Your task to perform on an android device: turn on notifications settings in the gmail app Image 0: 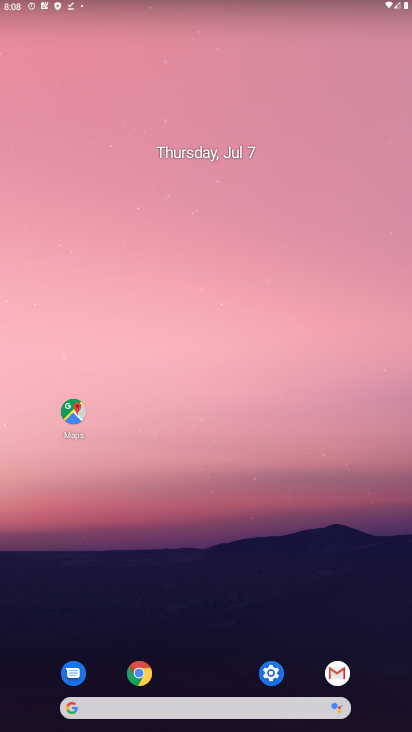
Step 0: click (344, 671)
Your task to perform on an android device: turn on notifications settings in the gmail app Image 1: 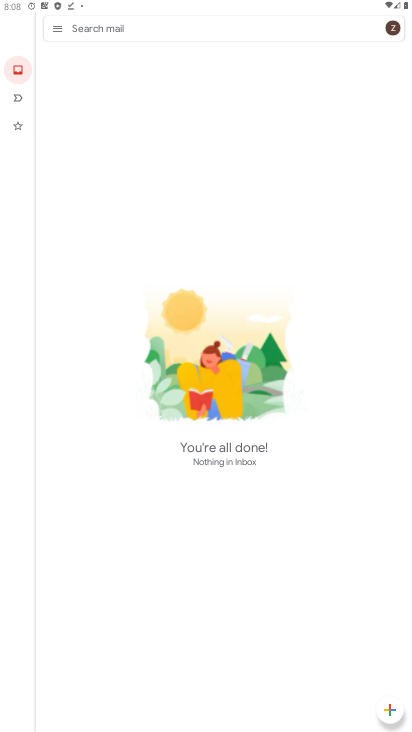
Step 1: click (47, 34)
Your task to perform on an android device: turn on notifications settings in the gmail app Image 2: 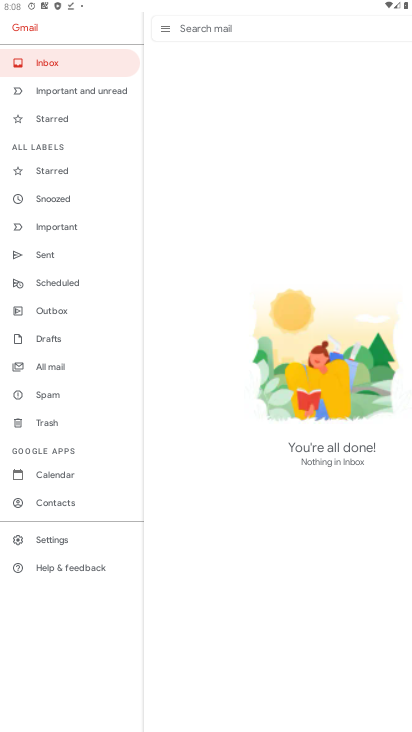
Step 2: click (43, 539)
Your task to perform on an android device: turn on notifications settings in the gmail app Image 3: 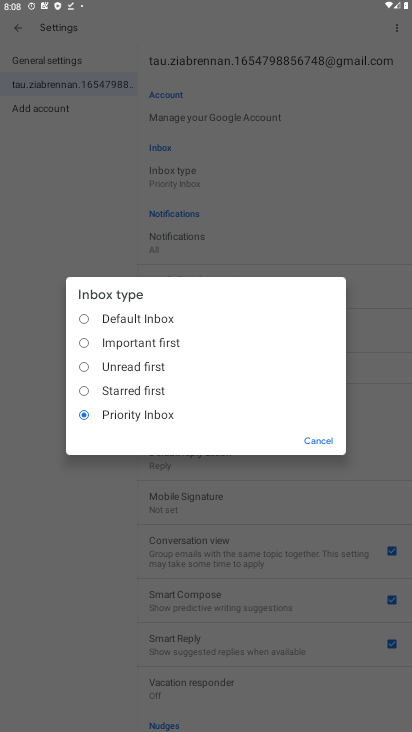
Step 3: click (320, 442)
Your task to perform on an android device: turn on notifications settings in the gmail app Image 4: 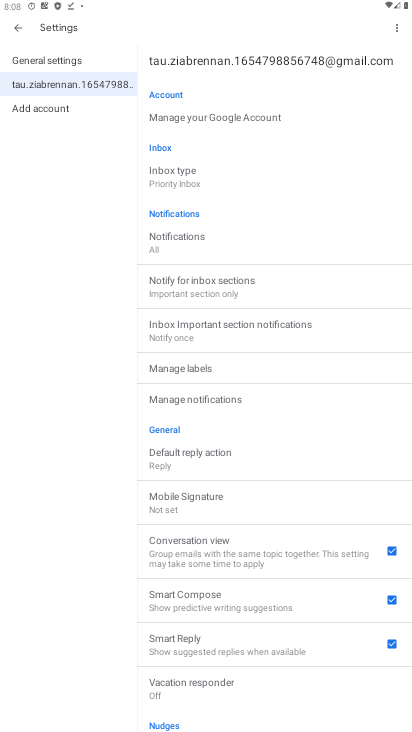
Step 4: click (190, 239)
Your task to perform on an android device: turn on notifications settings in the gmail app Image 5: 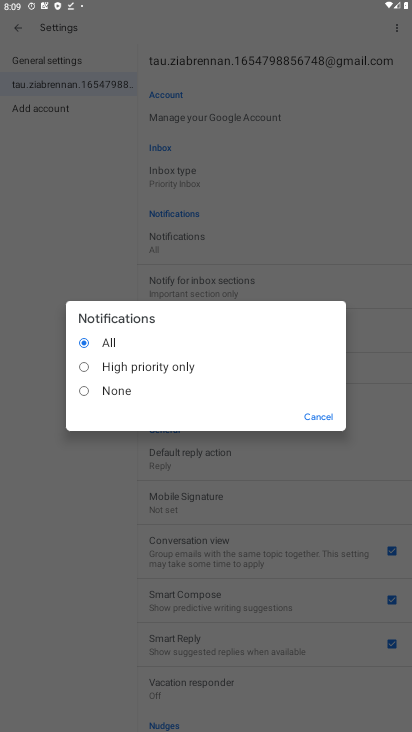
Step 5: task complete